Your task to perform on an android device: turn off notifications settings in the gmail app Image 0: 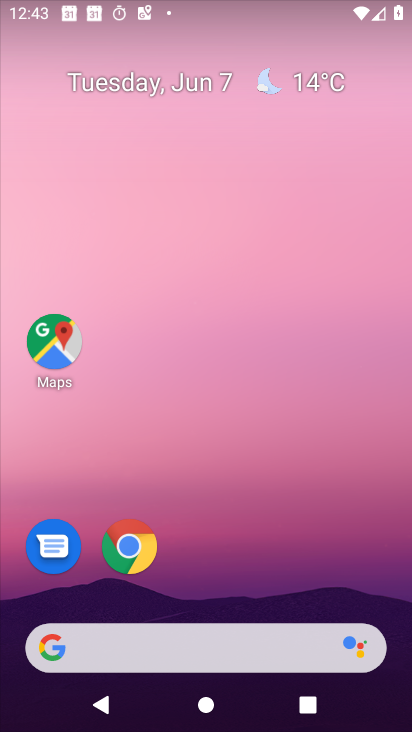
Step 0: drag from (207, 577) to (264, 265)
Your task to perform on an android device: turn off notifications settings in the gmail app Image 1: 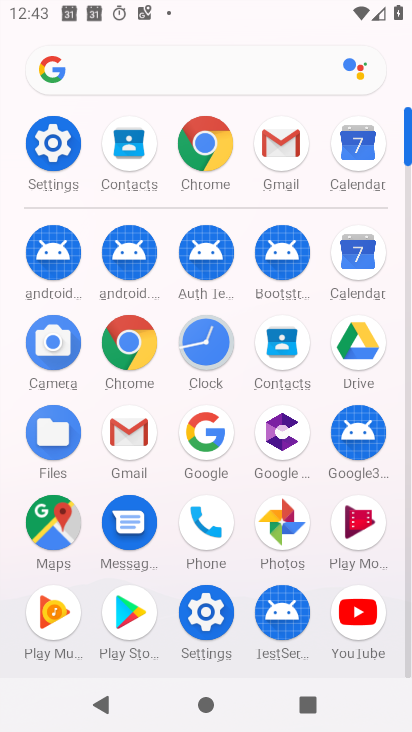
Step 1: click (134, 427)
Your task to perform on an android device: turn off notifications settings in the gmail app Image 2: 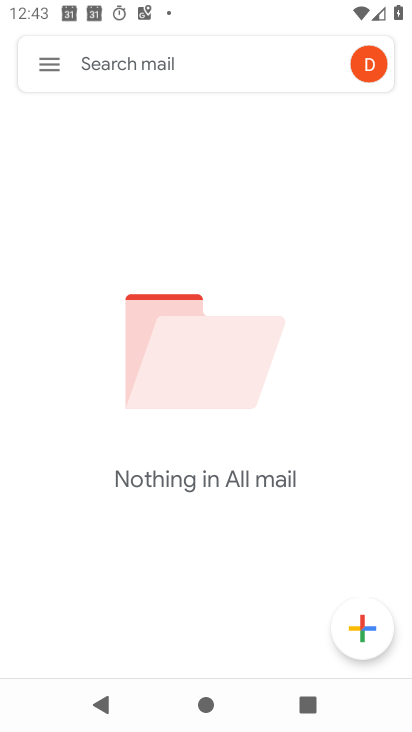
Step 2: click (27, 71)
Your task to perform on an android device: turn off notifications settings in the gmail app Image 3: 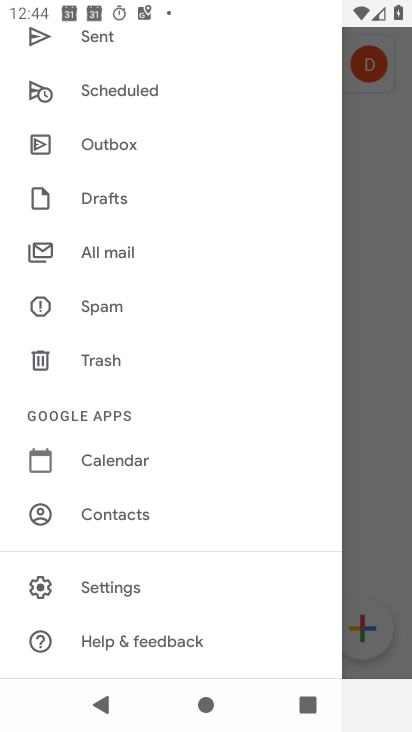
Step 3: click (123, 589)
Your task to perform on an android device: turn off notifications settings in the gmail app Image 4: 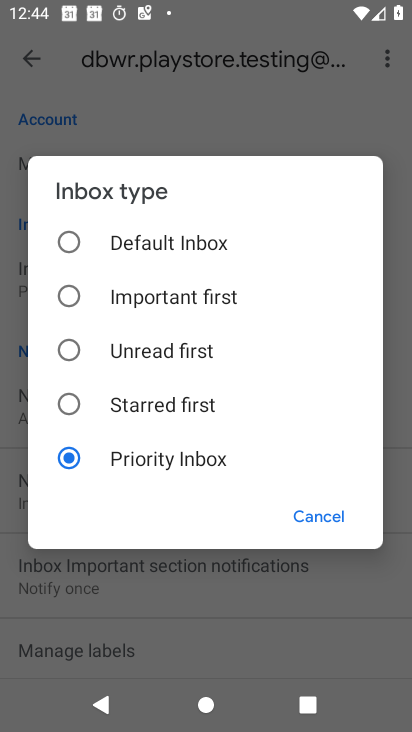
Step 4: click (171, 578)
Your task to perform on an android device: turn off notifications settings in the gmail app Image 5: 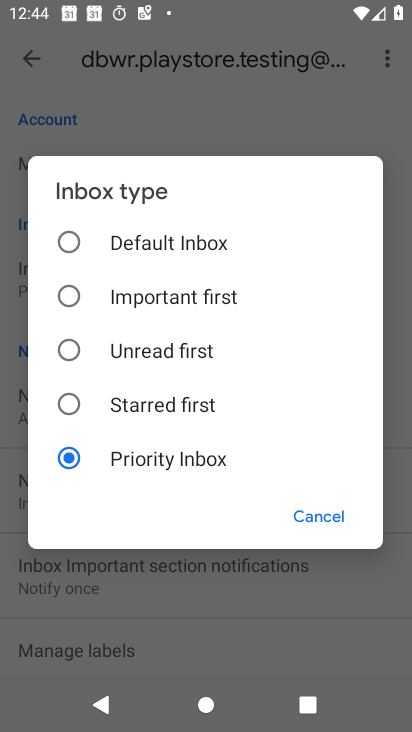
Step 5: click (304, 518)
Your task to perform on an android device: turn off notifications settings in the gmail app Image 6: 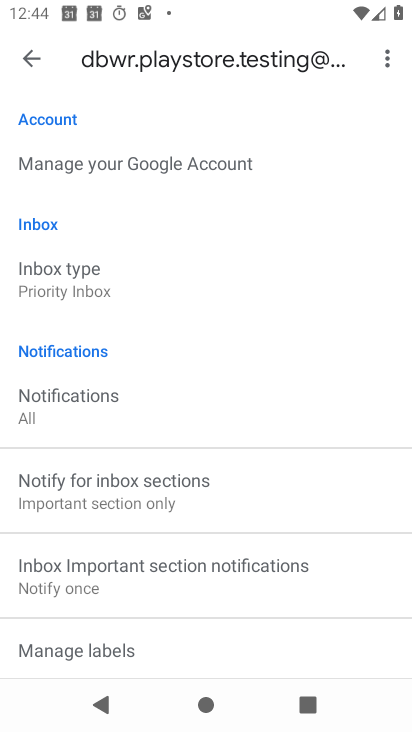
Step 6: click (17, 59)
Your task to perform on an android device: turn off notifications settings in the gmail app Image 7: 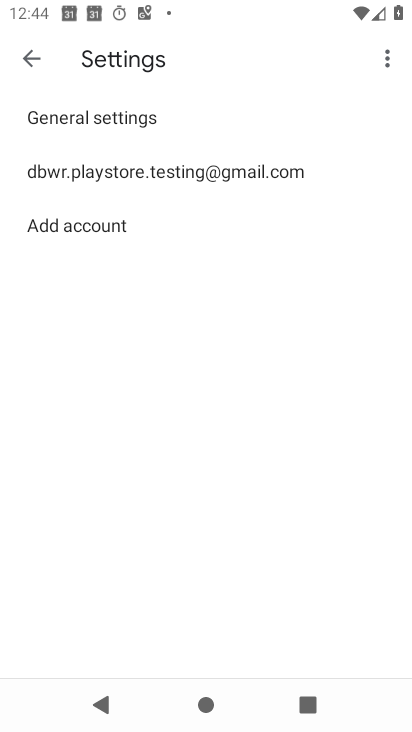
Step 7: click (157, 124)
Your task to perform on an android device: turn off notifications settings in the gmail app Image 8: 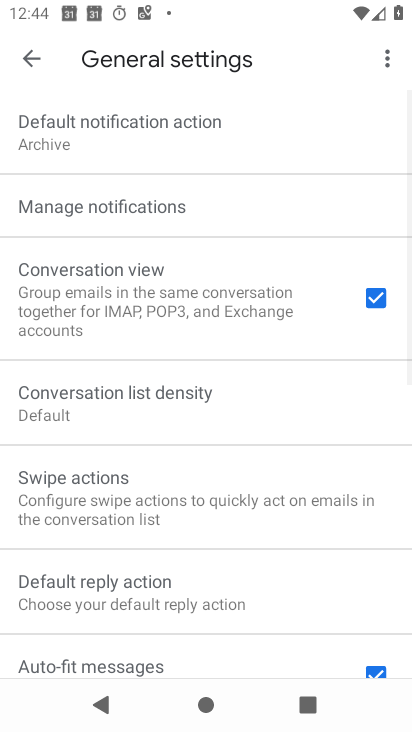
Step 8: click (157, 203)
Your task to perform on an android device: turn off notifications settings in the gmail app Image 9: 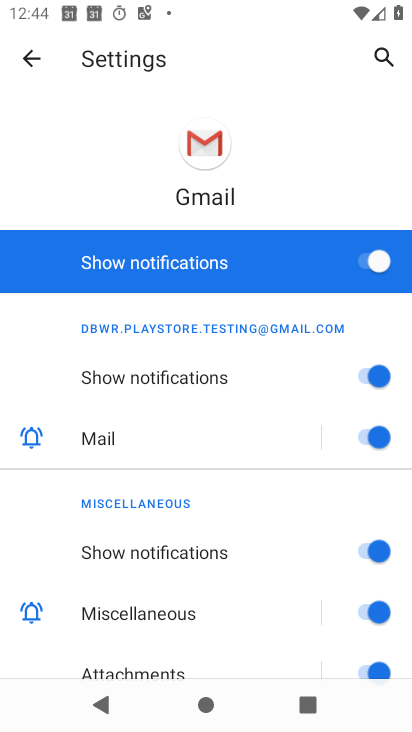
Step 9: click (336, 266)
Your task to perform on an android device: turn off notifications settings in the gmail app Image 10: 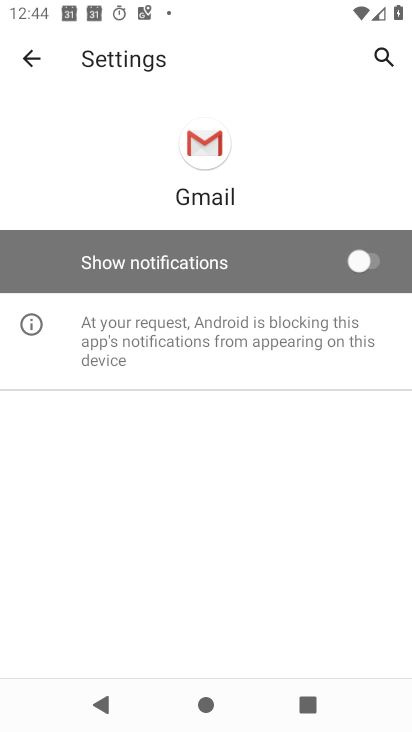
Step 10: task complete